Your task to perform on an android device: Search for Italian restaurants on Maps Image 0: 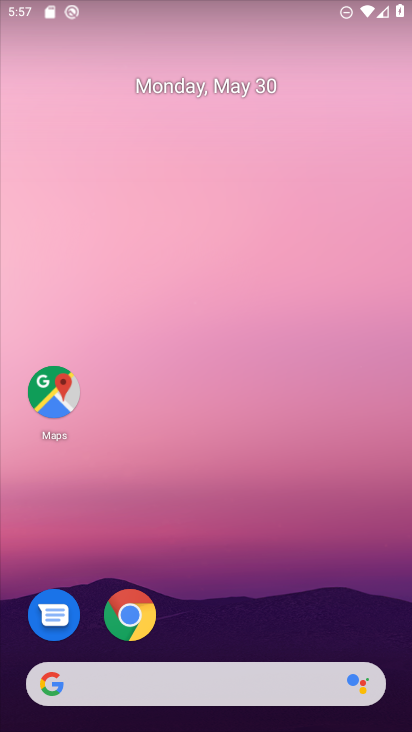
Step 0: click (70, 388)
Your task to perform on an android device: Search for Italian restaurants on Maps Image 1: 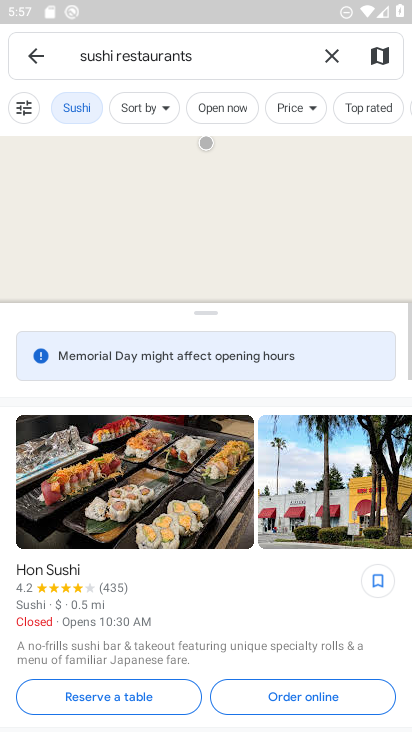
Step 1: click (331, 55)
Your task to perform on an android device: Search for Italian restaurants on Maps Image 2: 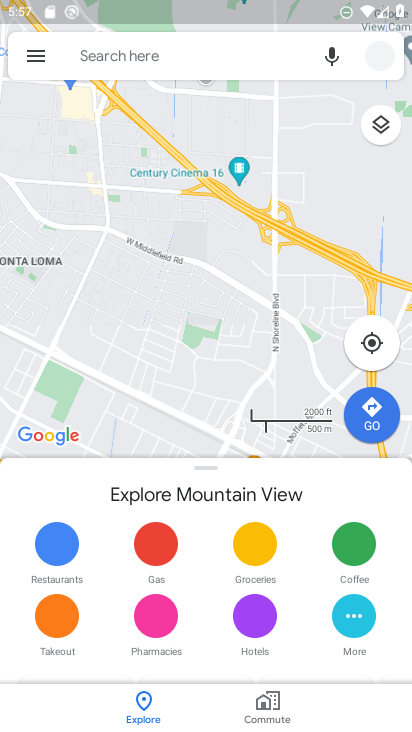
Step 2: click (142, 60)
Your task to perform on an android device: Search for Italian restaurants on Maps Image 3: 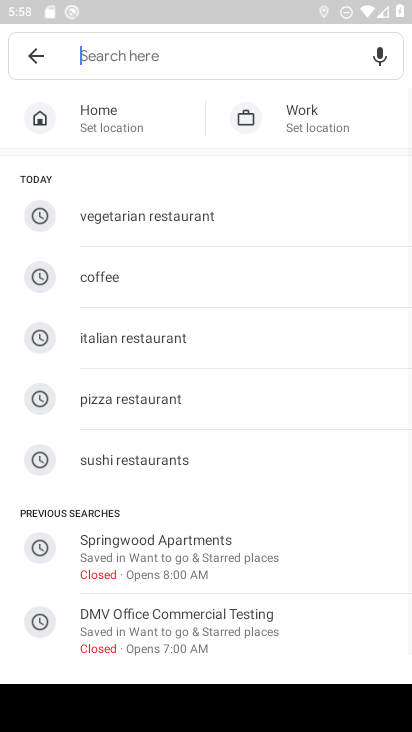
Step 3: click (110, 336)
Your task to perform on an android device: Search for Italian restaurants on Maps Image 4: 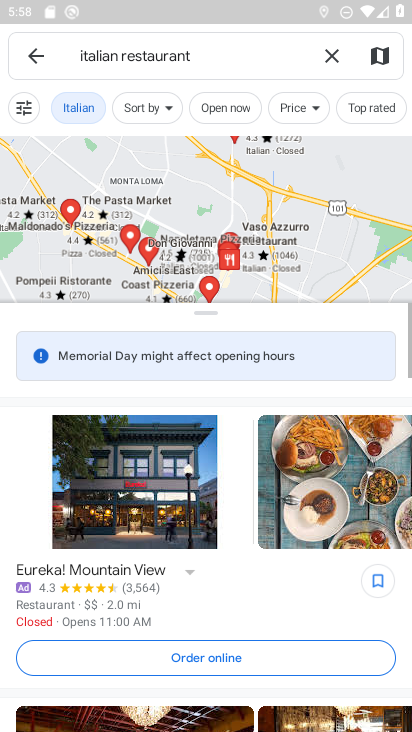
Step 4: task complete